Your task to perform on an android device: change your default location settings in chrome Image 0: 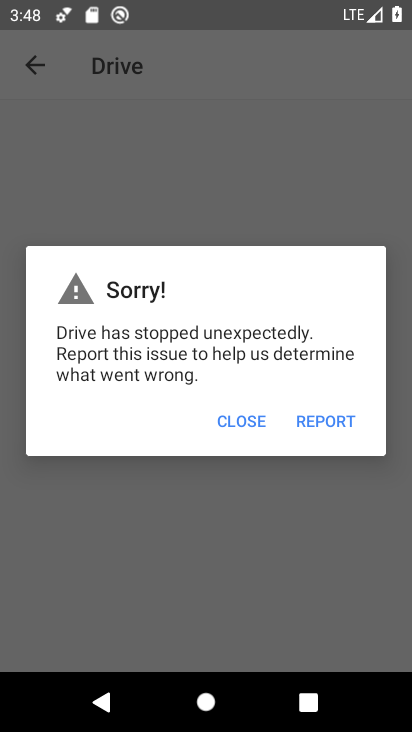
Step 0: press home button
Your task to perform on an android device: change your default location settings in chrome Image 1: 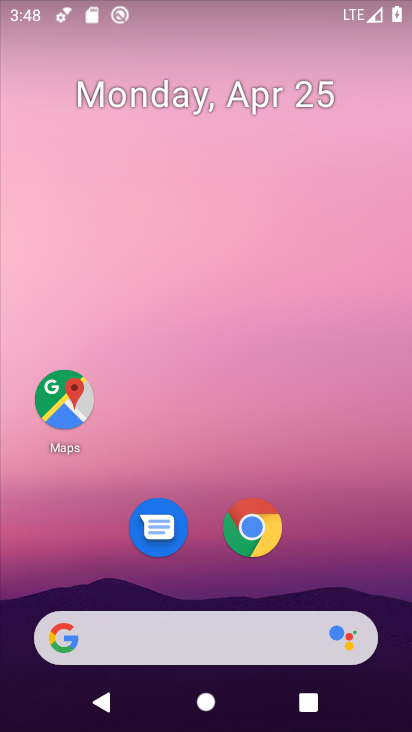
Step 1: click (250, 524)
Your task to perform on an android device: change your default location settings in chrome Image 2: 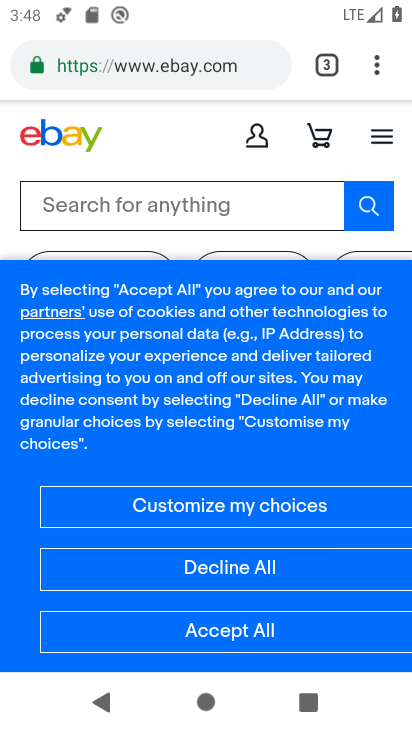
Step 2: click (375, 71)
Your task to perform on an android device: change your default location settings in chrome Image 3: 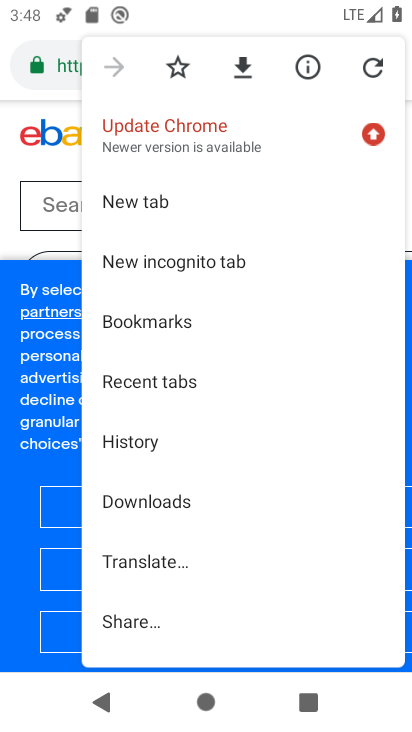
Step 3: drag from (222, 611) to (308, 174)
Your task to perform on an android device: change your default location settings in chrome Image 4: 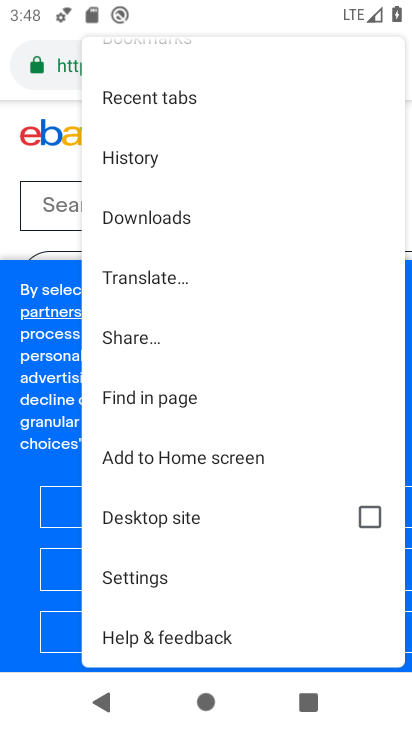
Step 4: click (136, 571)
Your task to perform on an android device: change your default location settings in chrome Image 5: 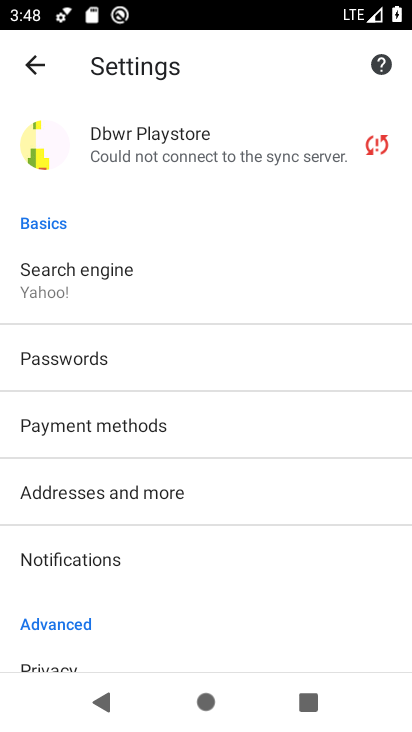
Step 5: drag from (229, 622) to (264, 230)
Your task to perform on an android device: change your default location settings in chrome Image 6: 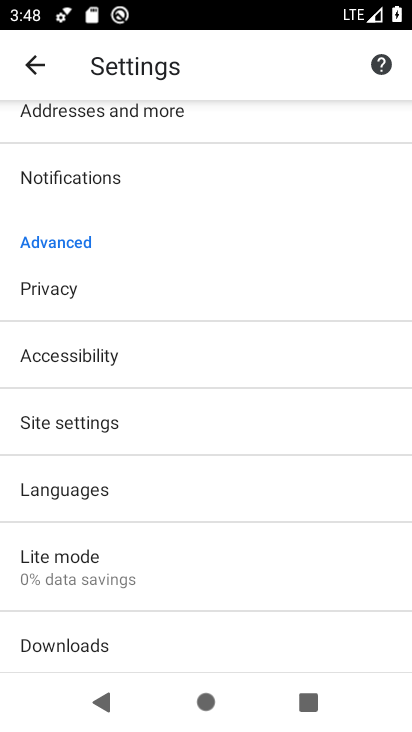
Step 6: click (59, 349)
Your task to perform on an android device: change your default location settings in chrome Image 7: 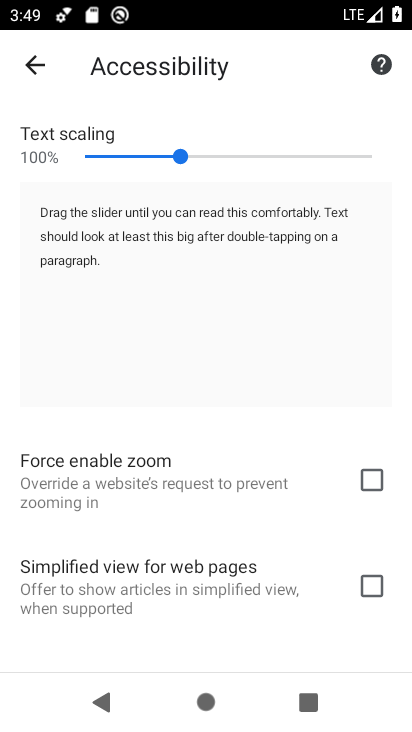
Step 7: press back button
Your task to perform on an android device: change your default location settings in chrome Image 8: 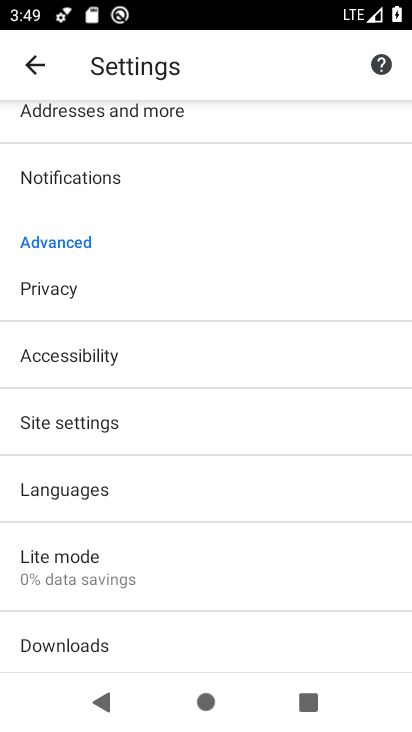
Step 8: drag from (163, 588) to (190, 289)
Your task to perform on an android device: change your default location settings in chrome Image 9: 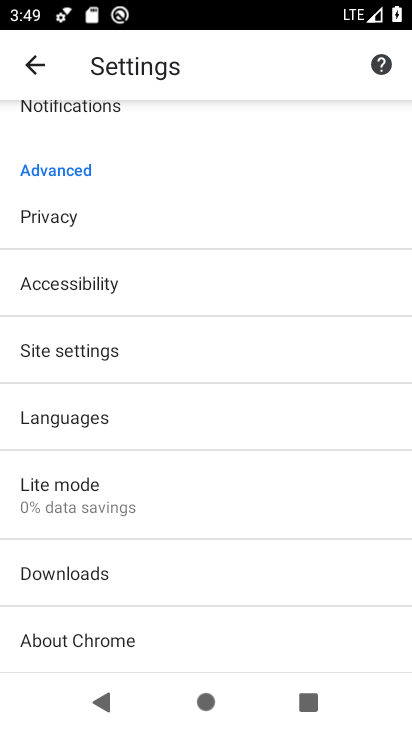
Step 9: click (58, 353)
Your task to perform on an android device: change your default location settings in chrome Image 10: 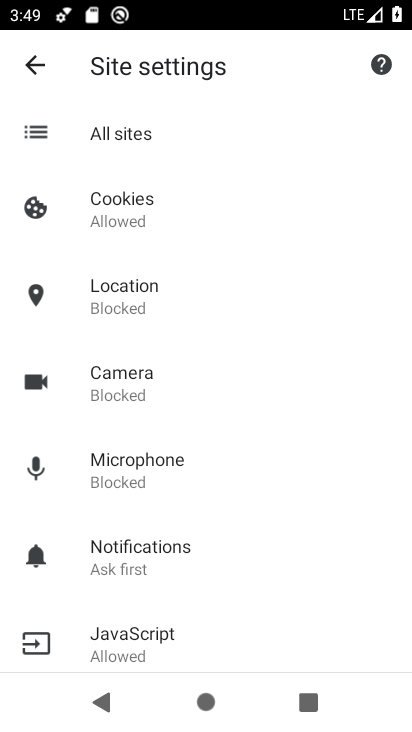
Step 10: click (123, 287)
Your task to perform on an android device: change your default location settings in chrome Image 11: 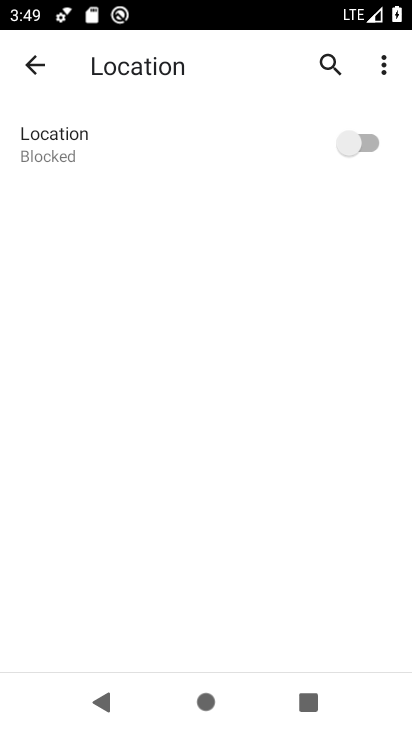
Step 11: click (370, 140)
Your task to perform on an android device: change your default location settings in chrome Image 12: 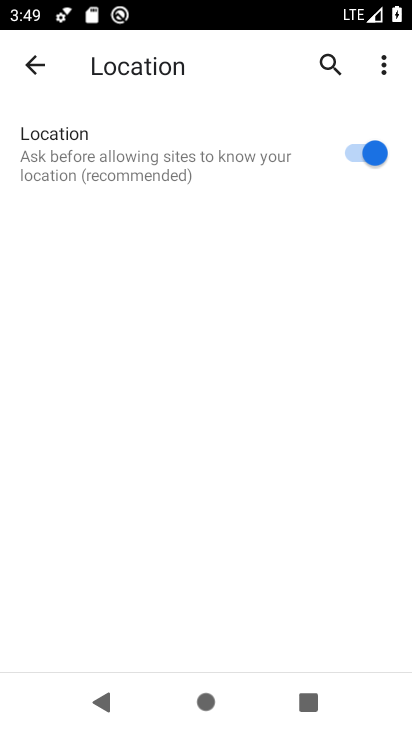
Step 12: task complete